Your task to perform on an android device: Check the weather Image 0: 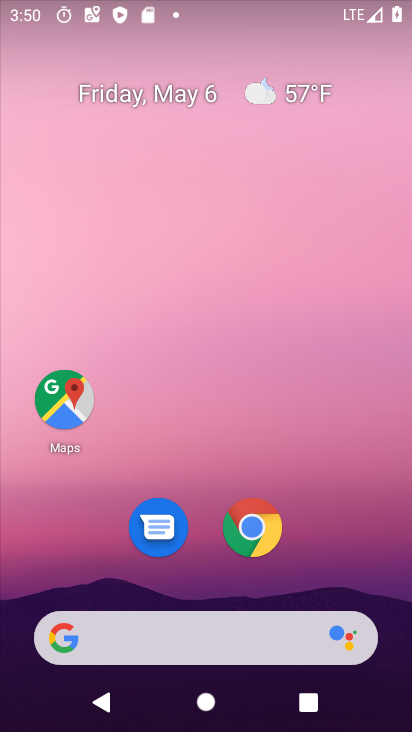
Step 0: drag from (293, 571) to (255, 168)
Your task to perform on an android device: Check the weather Image 1: 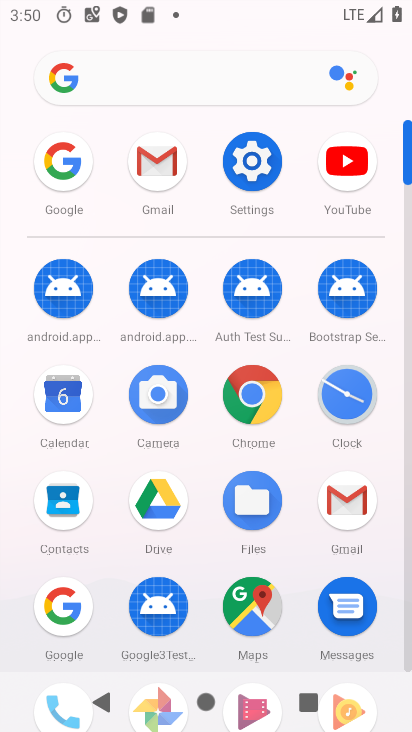
Step 1: click (56, 163)
Your task to perform on an android device: Check the weather Image 2: 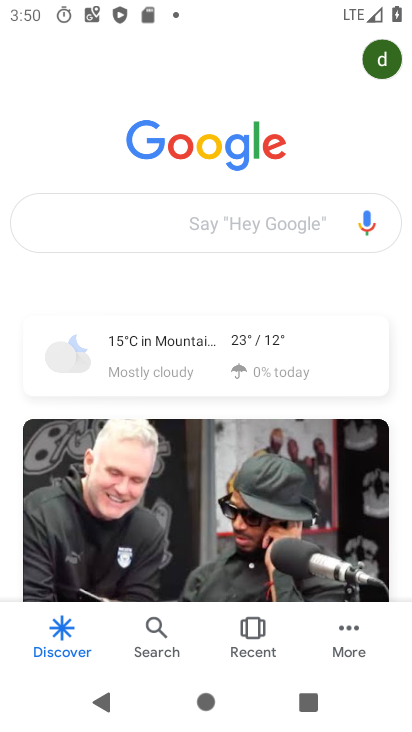
Step 2: click (166, 351)
Your task to perform on an android device: Check the weather Image 3: 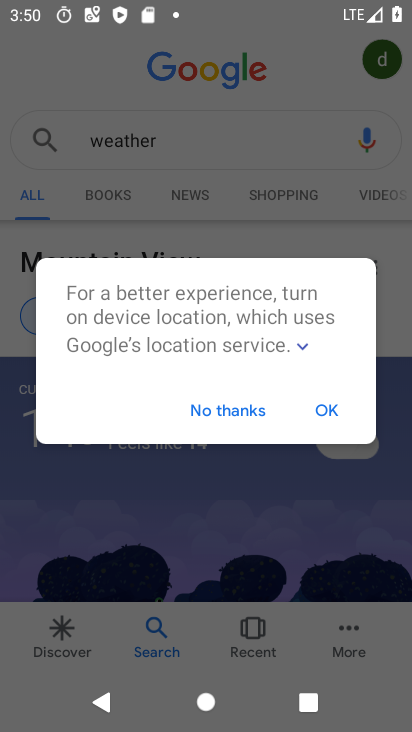
Step 3: drag from (219, 542) to (277, 289)
Your task to perform on an android device: Check the weather Image 4: 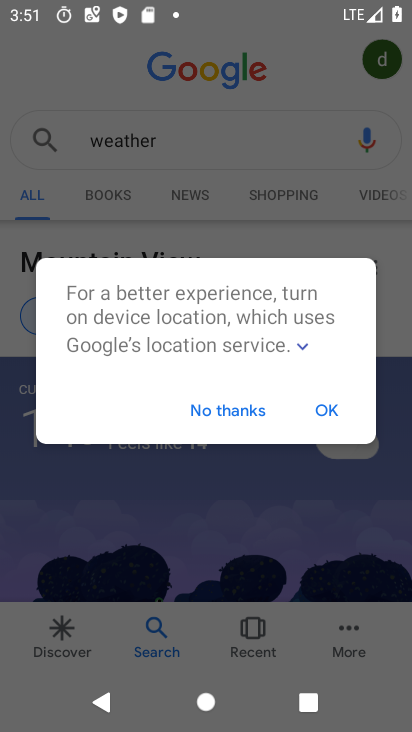
Step 4: click (241, 406)
Your task to perform on an android device: Check the weather Image 5: 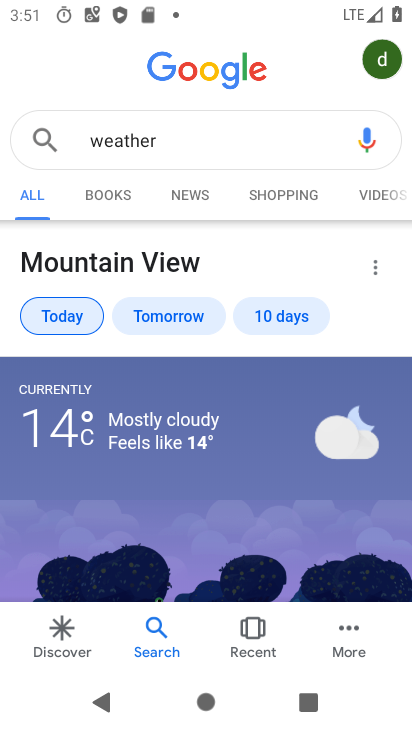
Step 5: task complete